Your task to perform on an android device: What time is it in Beijing? Image 0: 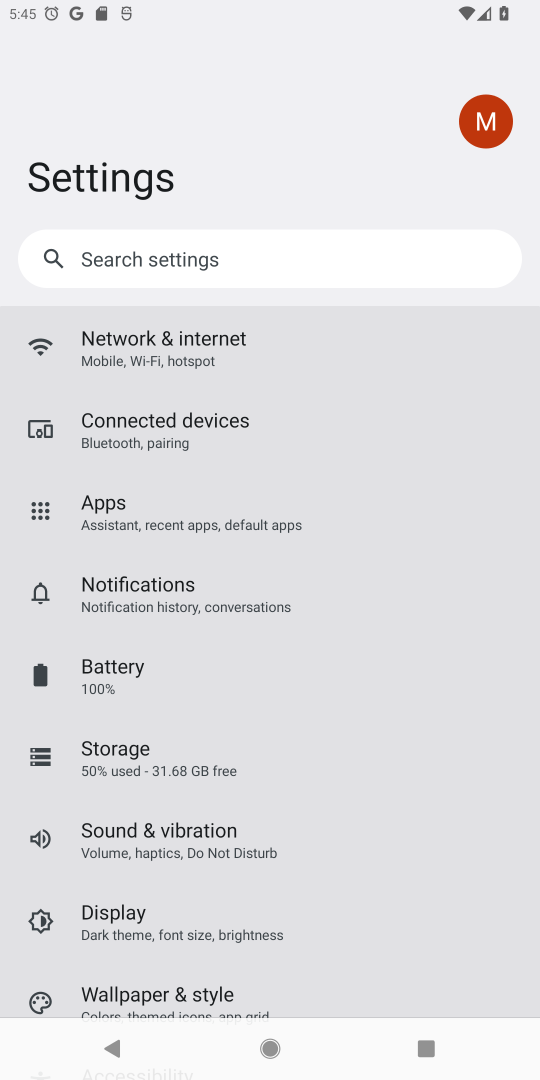
Step 0: press home button
Your task to perform on an android device: What time is it in Beijing? Image 1: 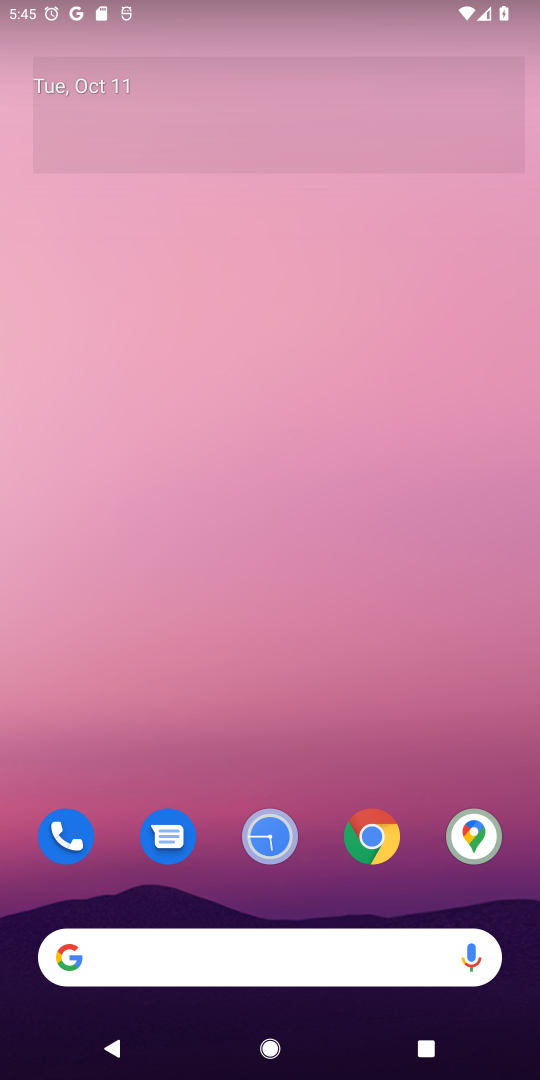
Step 1: click (285, 968)
Your task to perform on an android device: What time is it in Beijing? Image 2: 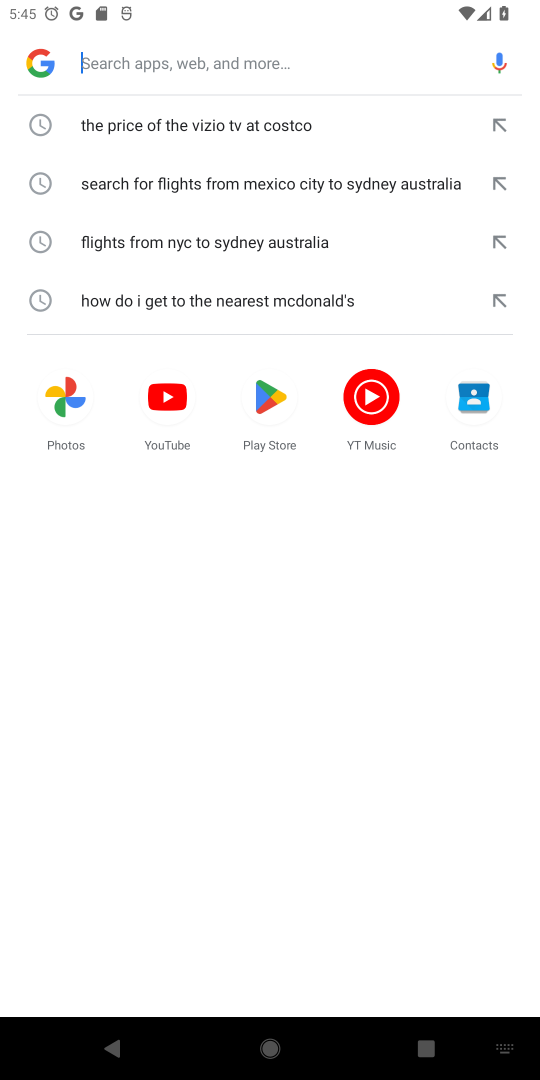
Step 2: type "What time is it in Beijing?"
Your task to perform on an android device: What time is it in Beijing? Image 3: 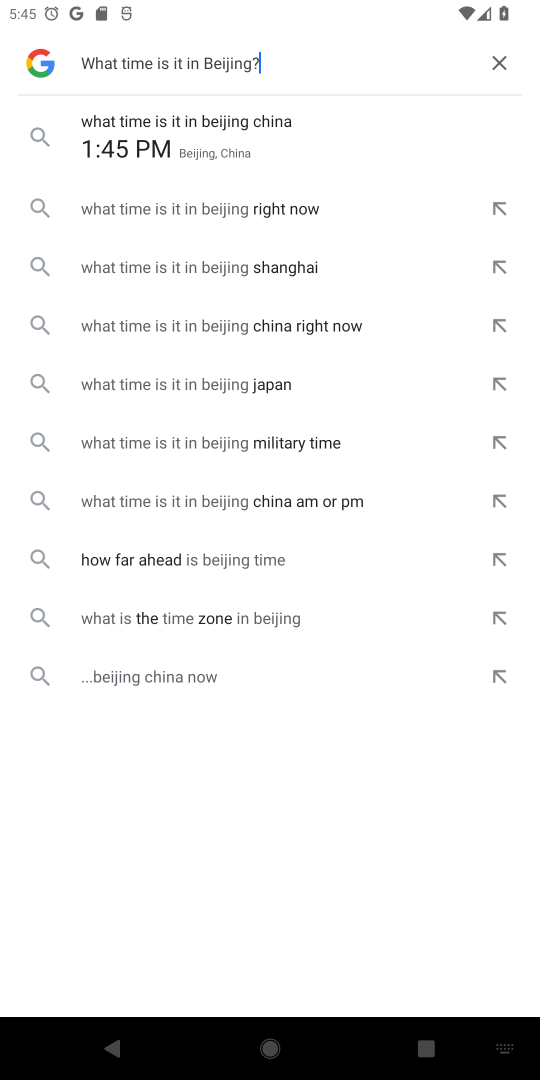
Step 3: click (190, 145)
Your task to perform on an android device: What time is it in Beijing? Image 4: 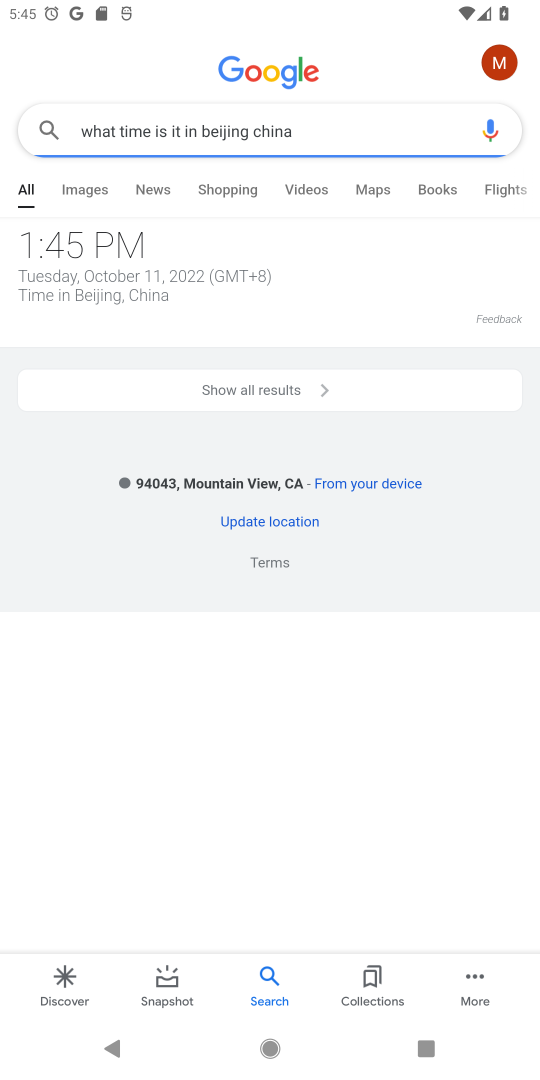
Step 4: task complete